Your task to perform on an android device: Open battery settings Image 0: 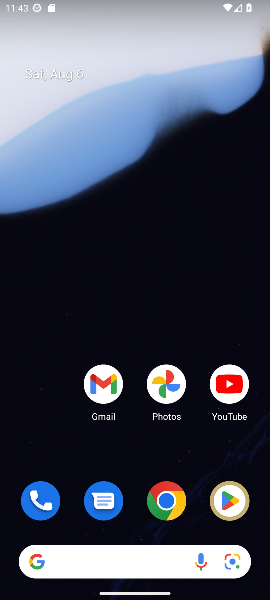
Step 0: drag from (136, 462) to (106, 92)
Your task to perform on an android device: Open battery settings Image 1: 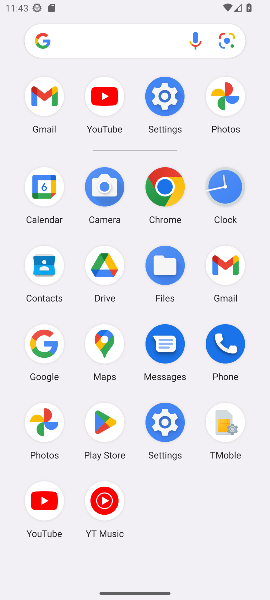
Step 1: click (162, 432)
Your task to perform on an android device: Open battery settings Image 2: 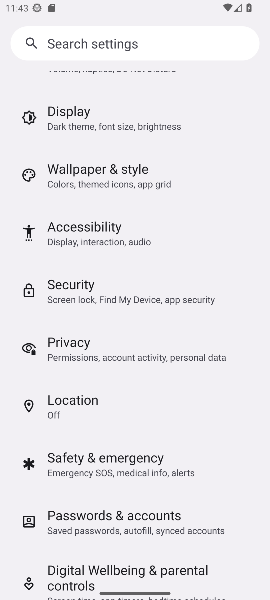
Step 2: drag from (104, 199) to (59, 583)
Your task to perform on an android device: Open battery settings Image 3: 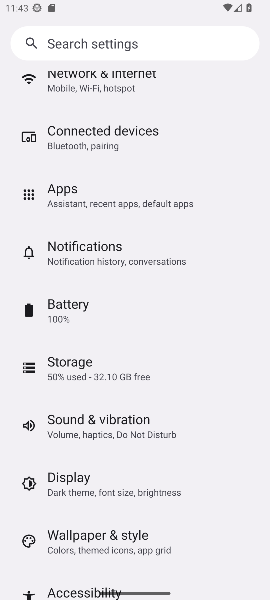
Step 3: click (80, 231)
Your task to perform on an android device: Open battery settings Image 4: 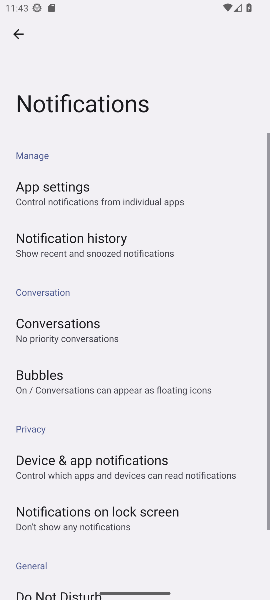
Step 4: click (75, 310)
Your task to perform on an android device: Open battery settings Image 5: 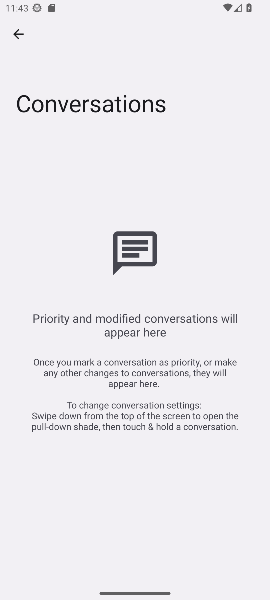
Step 5: press back button
Your task to perform on an android device: Open battery settings Image 6: 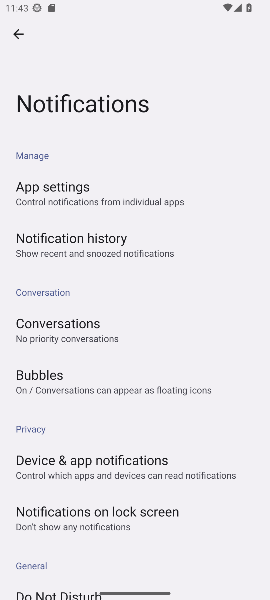
Step 6: press back button
Your task to perform on an android device: Open battery settings Image 7: 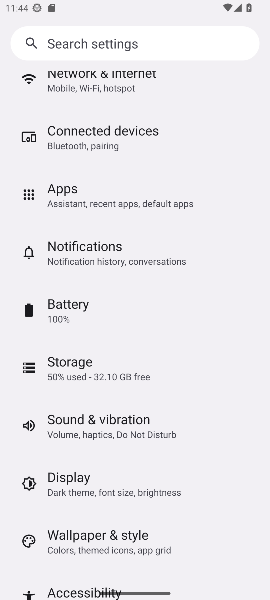
Step 7: click (43, 301)
Your task to perform on an android device: Open battery settings Image 8: 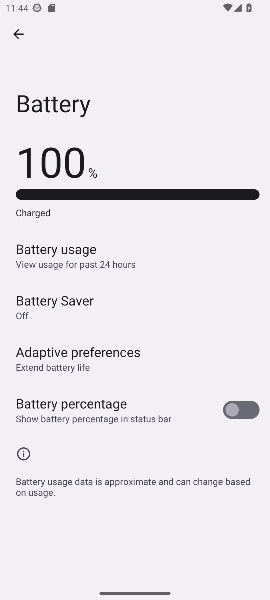
Step 8: task complete